Your task to perform on an android device: Open the stopwatch Image 0: 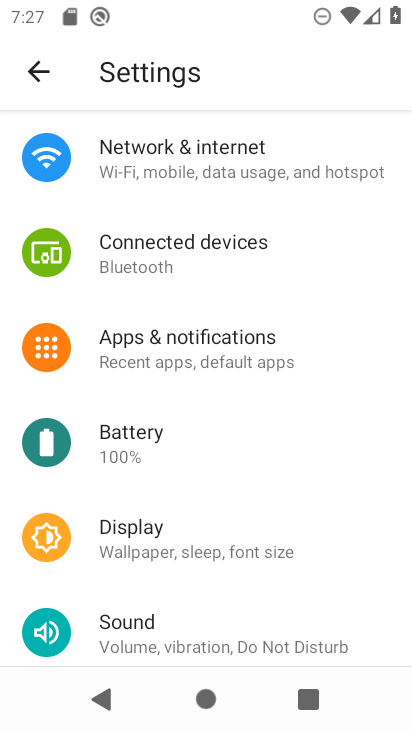
Step 0: press home button
Your task to perform on an android device: Open the stopwatch Image 1: 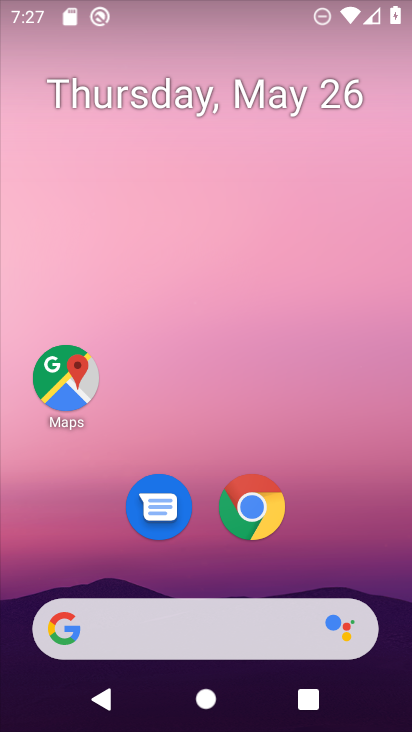
Step 1: drag from (211, 569) to (226, 136)
Your task to perform on an android device: Open the stopwatch Image 2: 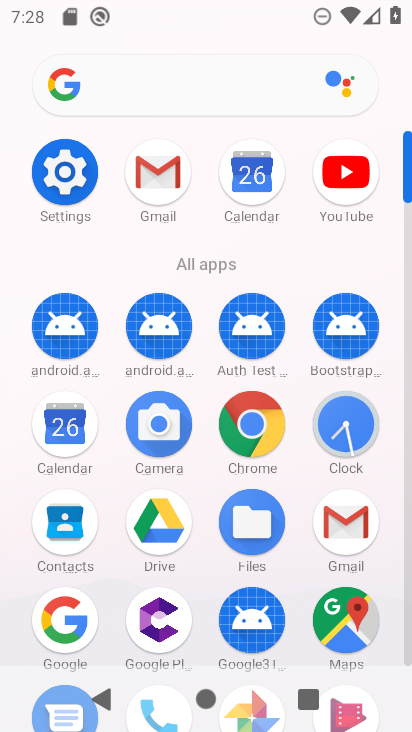
Step 2: click (361, 419)
Your task to perform on an android device: Open the stopwatch Image 3: 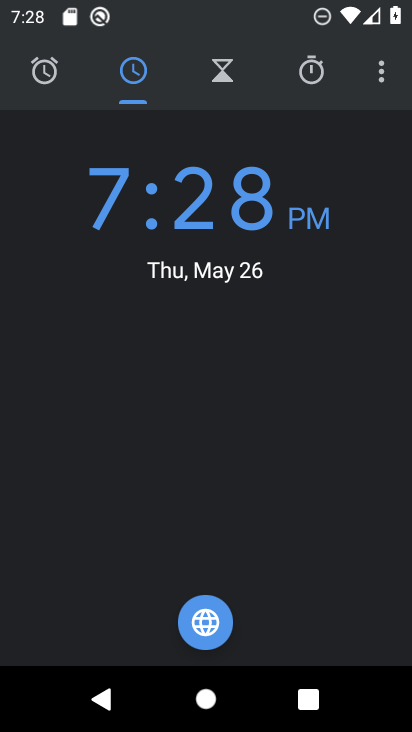
Step 3: click (321, 77)
Your task to perform on an android device: Open the stopwatch Image 4: 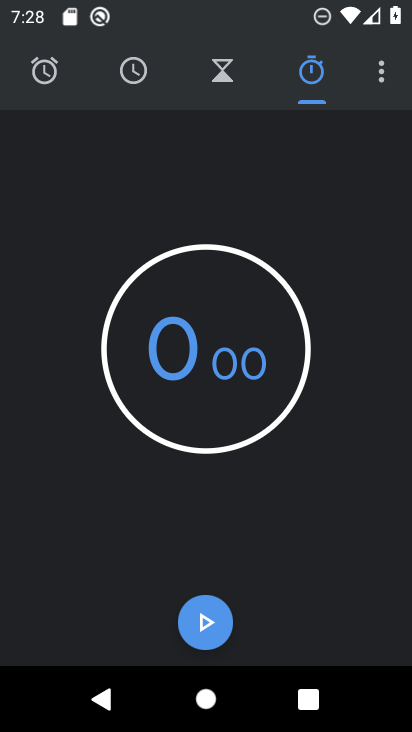
Step 4: task complete